Your task to perform on an android device: turn vacation reply on in the gmail app Image 0: 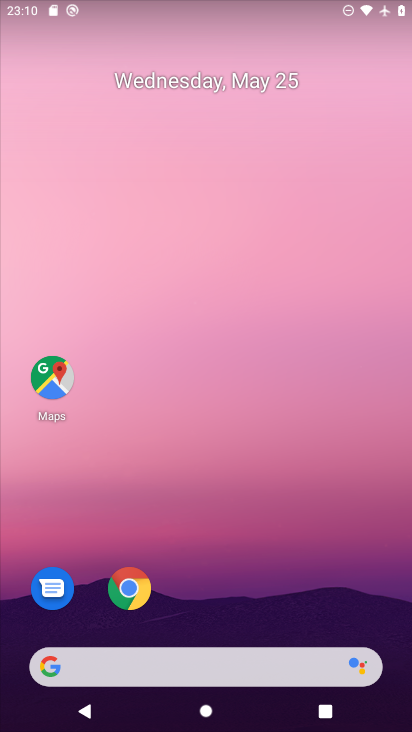
Step 0: drag from (289, 594) to (242, 148)
Your task to perform on an android device: turn vacation reply on in the gmail app Image 1: 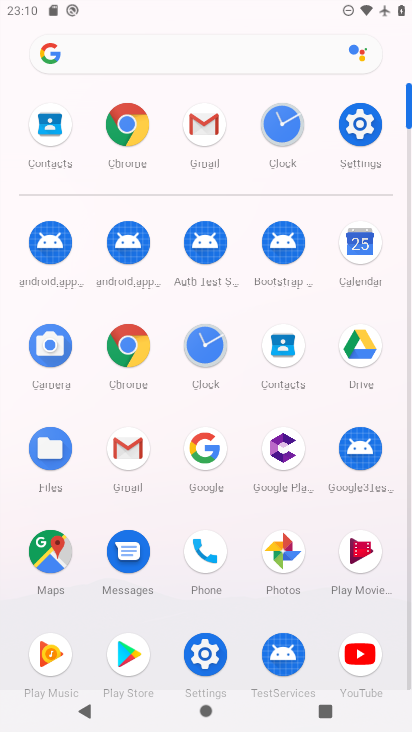
Step 1: click (217, 130)
Your task to perform on an android device: turn vacation reply on in the gmail app Image 2: 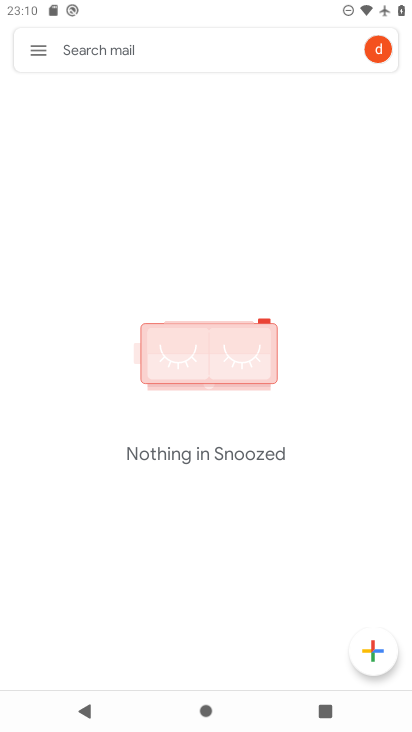
Step 2: click (28, 49)
Your task to perform on an android device: turn vacation reply on in the gmail app Image 3: 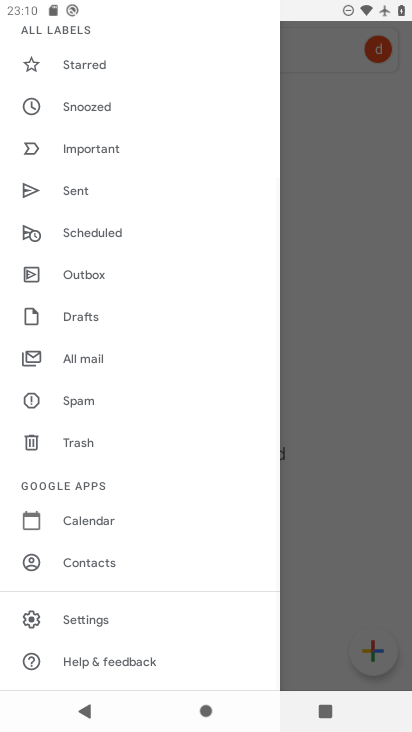
Step 3: click (86, 623)
Your task to perform on an android device: turn vacation reply on in the gmail app Image 4: 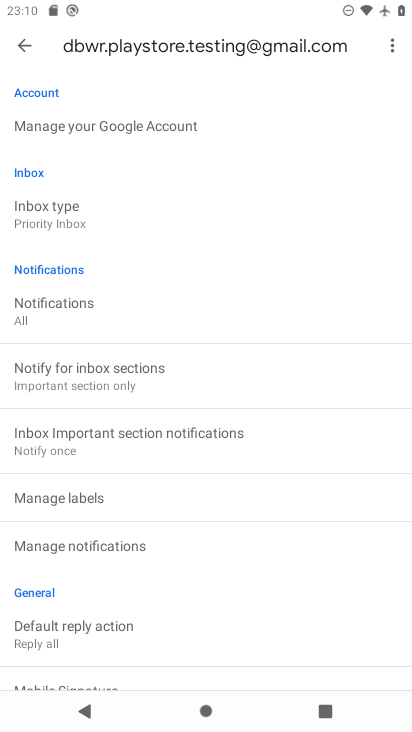
Step 4: drag from (128, 176) to (99, 651)
Your task to perform on an android device: turn vacation reply on in the gmail app Image 5: 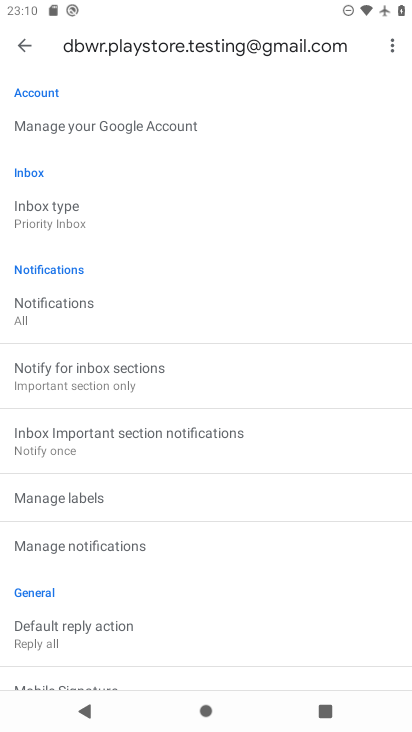
Step 5: click (81, 217)
Your task to perform on an android device: turn vacation reply on in the gmail app Image 6: 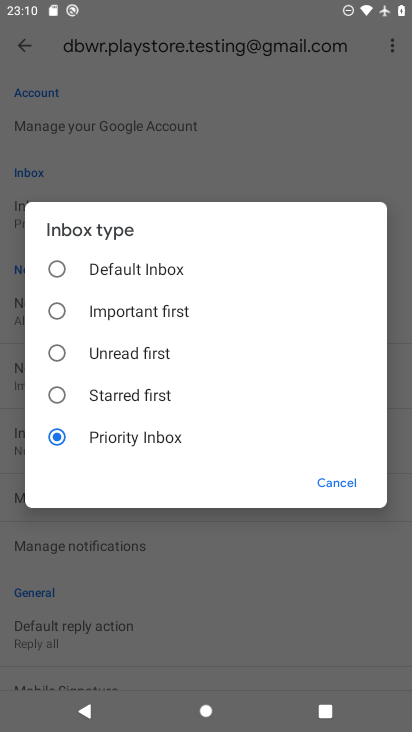
Step 6: click (247, 121)
Your task to perform on an android device: turn vacation reply on in the gmail app Image 7: 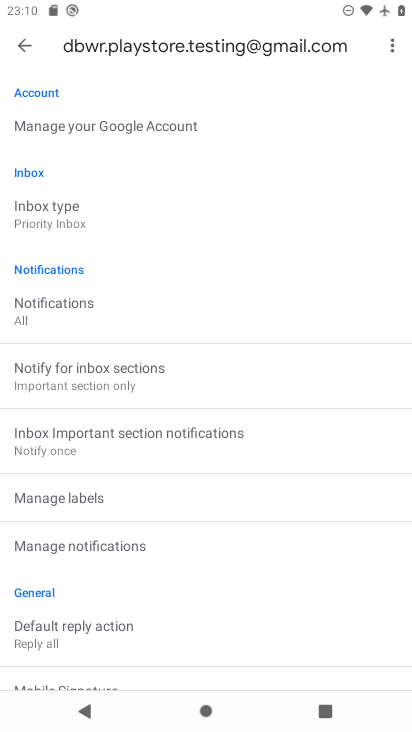
Step 7: drag from (262, 568) to (249, 64)
Your task to perform on an android device: turn vacation reply on in the gmail app Image 8: 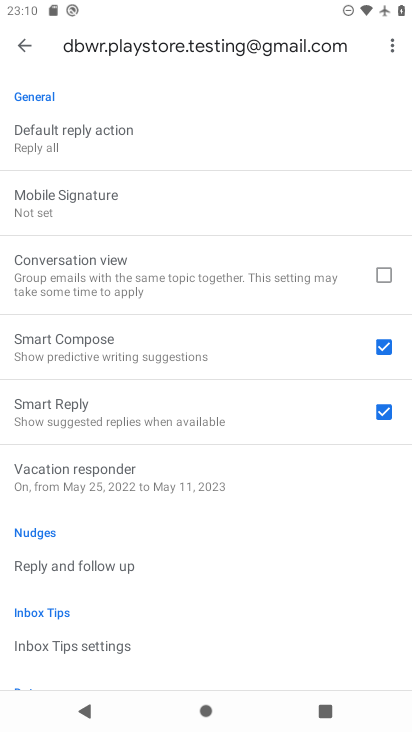
Step 8: click (144, 473)
Your task to perform on an android device: turn vacation reply on in the gmail app Image 9: 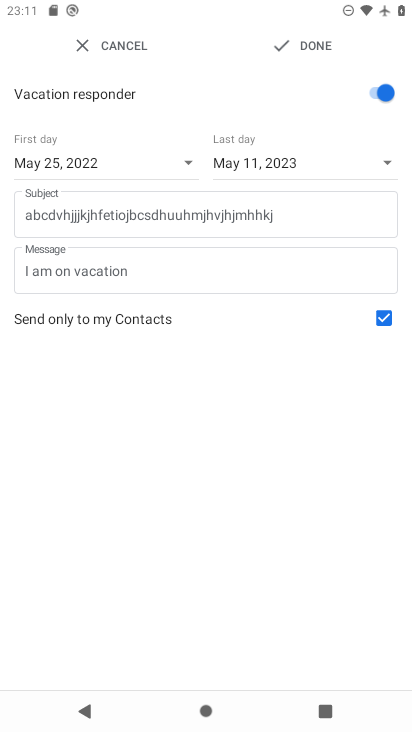
Step 9: task complete